Your task to perform on an android device: Open display settings Image 0: 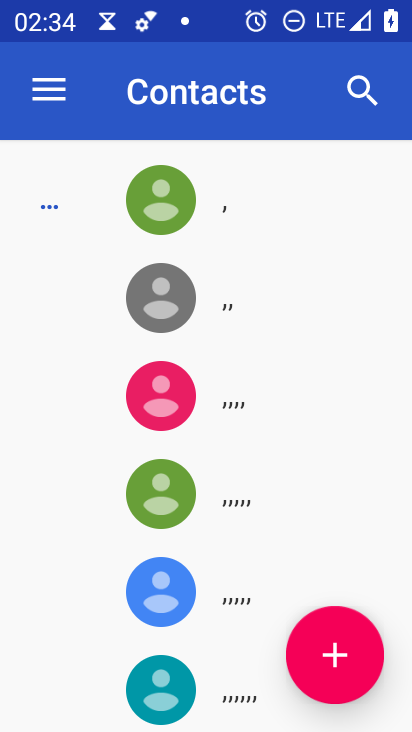
Step 0: press home button
Your task to perform on an android device: Open display settings Image 1: 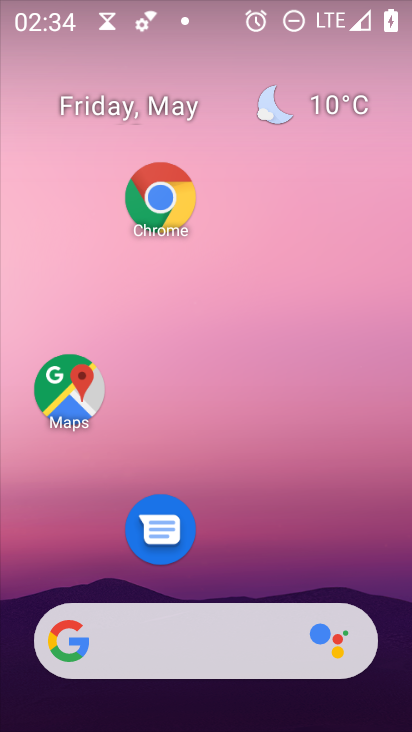
Step 1: drag from (264, 477) to (275, 151)
Your task to perform on an android device: Open display settings Image 2: 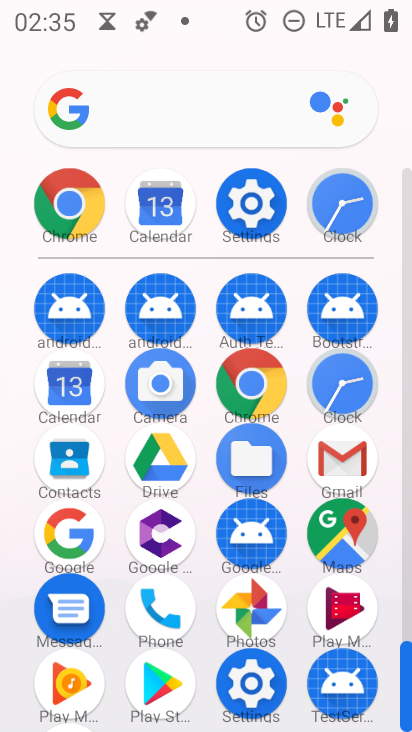
Step 2: click (249, 188)
Your task to perform on an android device: Open display settings Image 3: 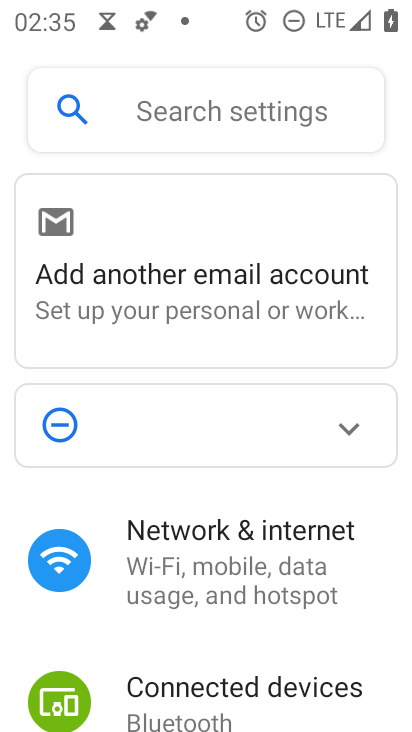
Step 3: drag from (251, 649) to (267, 94)
Your task to perform on an android device: Open display settings Image 4: 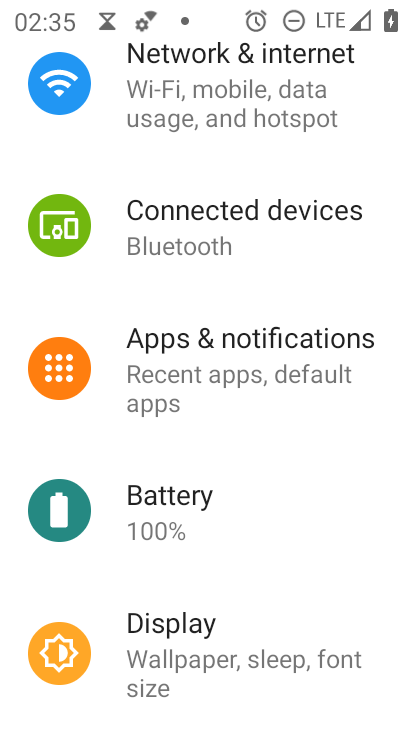
Step 4: click (143, 644)
Your task to perform on an android device: Open display settings Image 5: 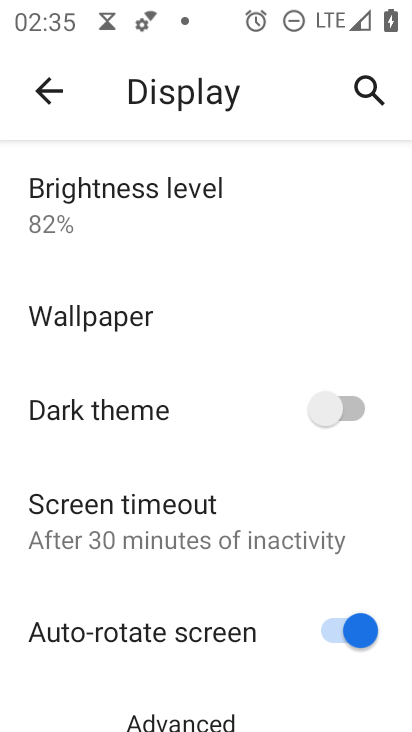
Step 5: task complete